Your task to perform on an android device: Open Google Maps Image 0: 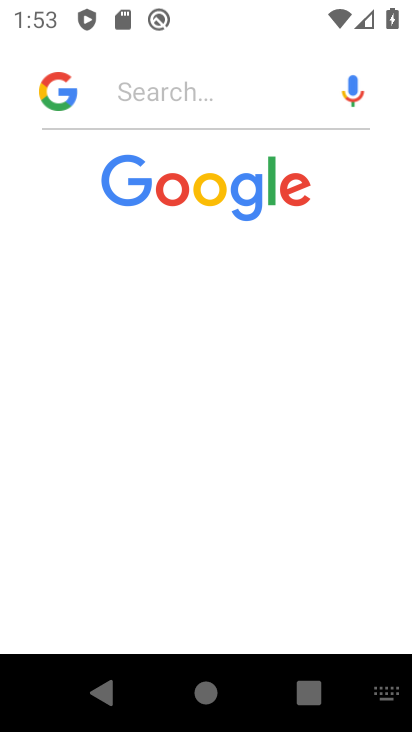
Step 0: press home button
Your task to perform on an android device: Open Google Maps Image 1: 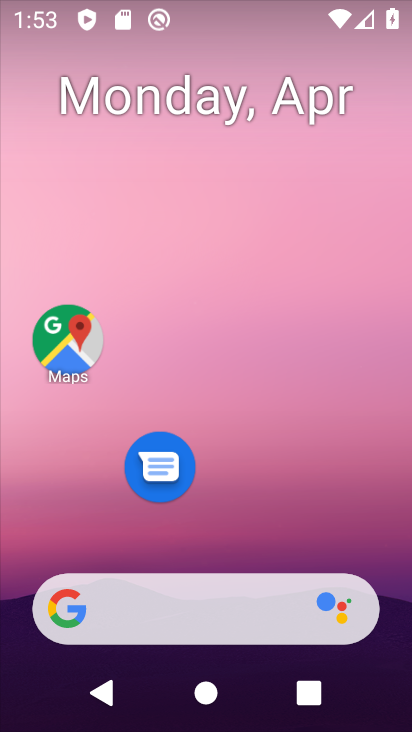
Step 1: drag from (235, 530) to (237, 23)
Your task to perform on an android device: Open Google Maps Image 2: 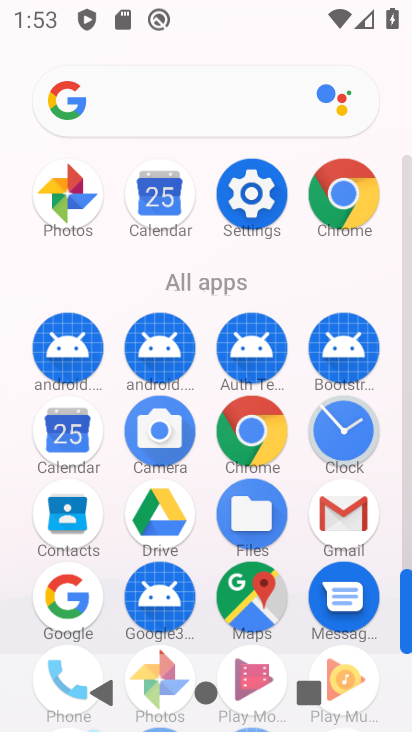
Step 2: click (250, 599)
Your task to perform on an android device: Open Google Maps Image 3: 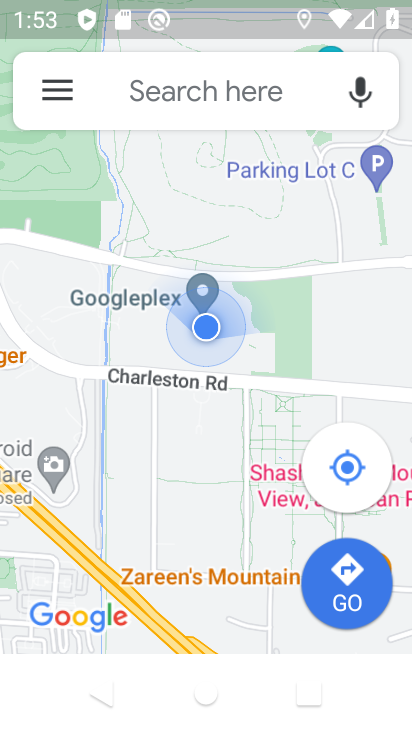
Step 3: task complete